Your task to perform on an android device: Is it going to rain this weekend? Image 0: 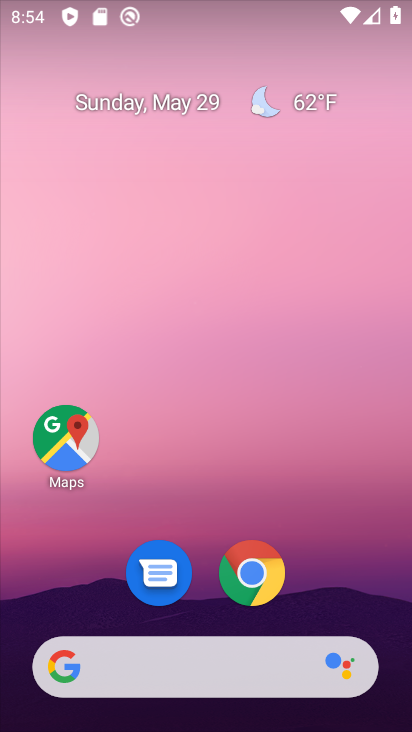
Step 0: press home button
Your task to perform on an android device: Is it going to rain this weekend? Image 1: 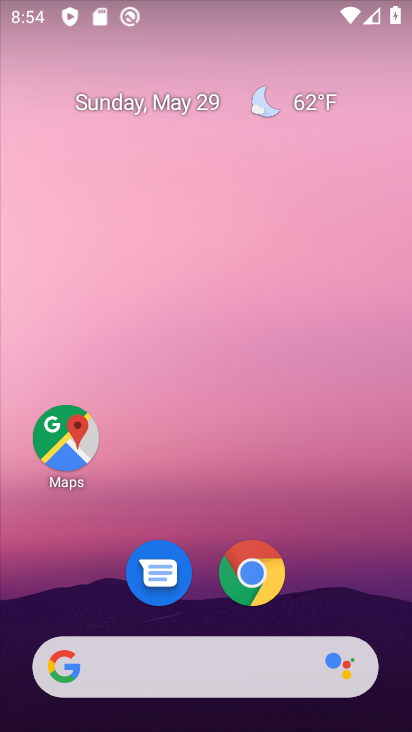
Step 1: click (62, 674)
Your task to perform on an android device: Is it going to rain this weekend? Image 2: 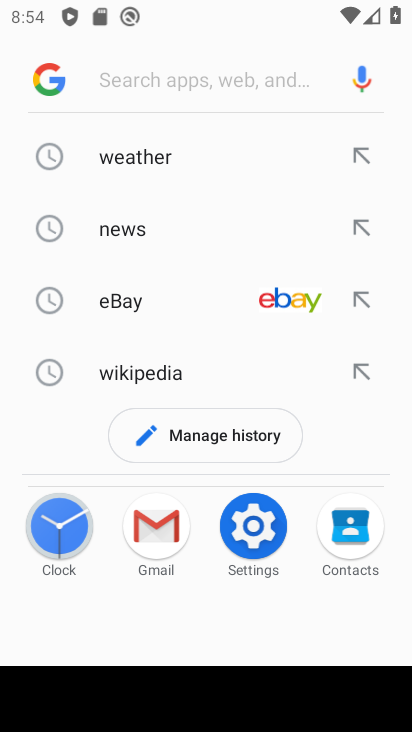
Step 2: type "rain this weekend?"
Your task to perform on an android device: Is it going to rain this weekend? Image 3: 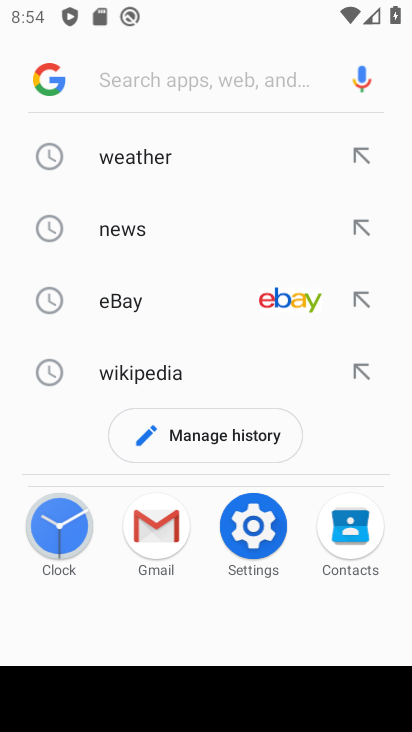
Step 3: click (201, 80)
Your task to perform on an android device: Is it going to rain this weekend? Image 4: 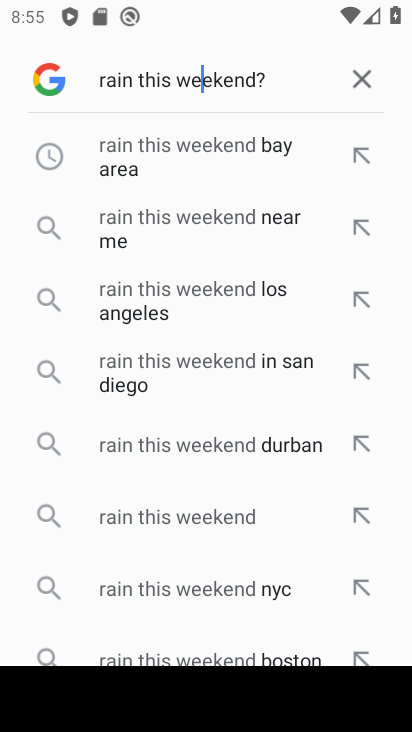
Step 4: click (193, 523)
Your task to perform on an android device: Is it going to rain this weekend? Image 5: 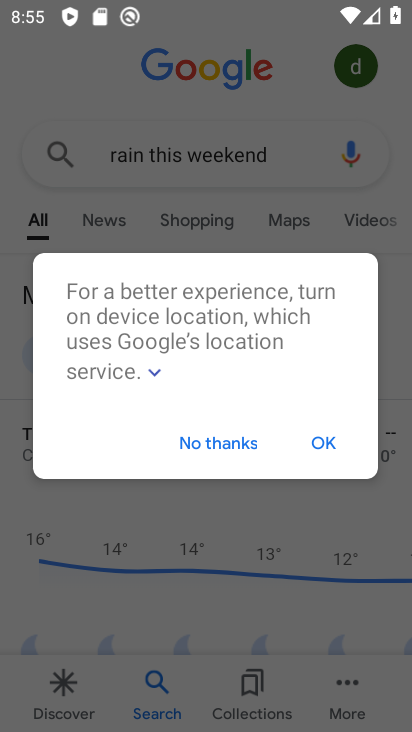
Step 5: click (218, 443)
Your task to perform on an android device: Is it going to rain this weekend? Image 6: 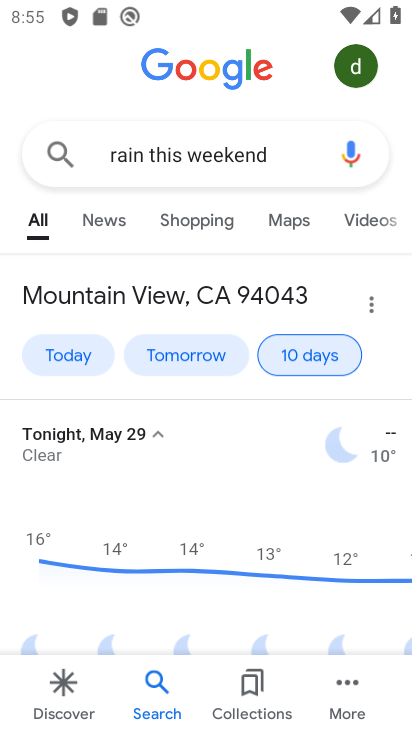
Step 6: task complete